Your task to perform on an android device: What's a good restaurant in Phoenix? Image 0: 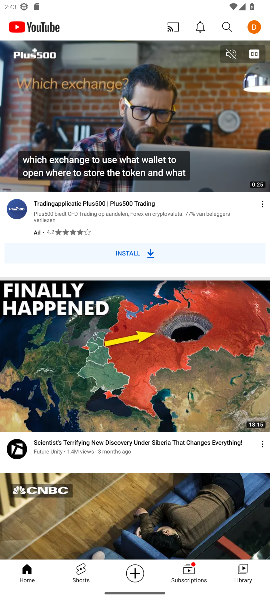
Step 0: press home button
Your task to perform on an android device: What's a good restaurant in Phoenix? Image 1: 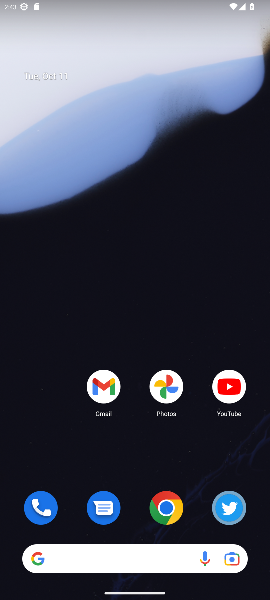
Step 1: click (165, 513)
Your task to perform on an android device: What's a good restaurant in Phoenix? Image 2: 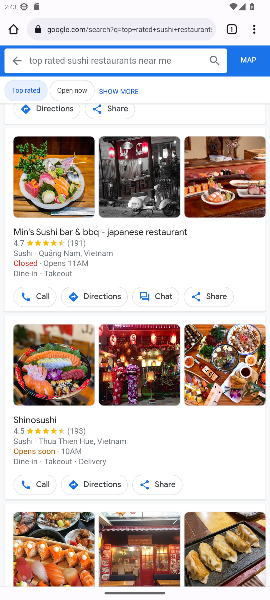
Step 2: click (179, 28)
Your task to perform on an android device: What's a good restaurant in Phoenix? Image 3: 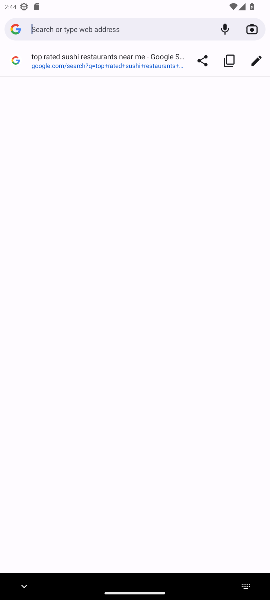
Step 3: type "good restaurant in Phoenix"
Your task to perform on an android device: What's a good restaurant in Phoenix? Image 4: 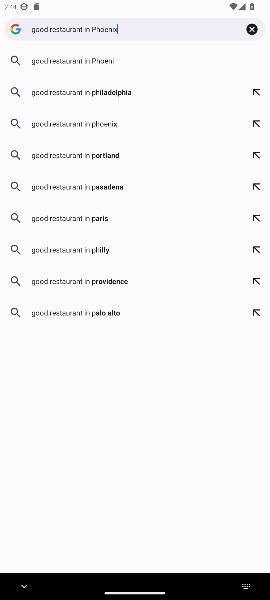
Step 4: type ""
Your task to perform on an android device: What's a good restaurant in Phoenix? Image 5: 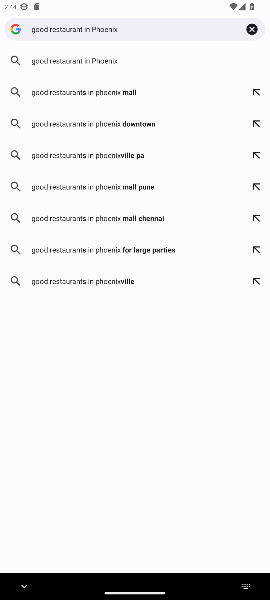
Step 5: press enter
Your task to perform on an android device: What's a good restaurant in Phoenix? Image 6: 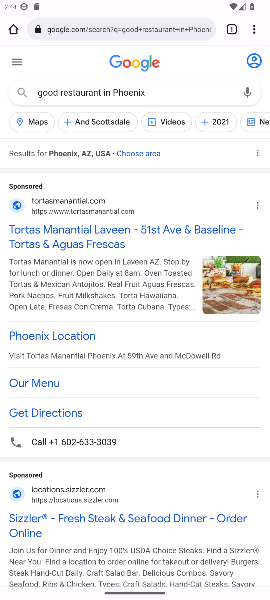
Step 6: drag from (176, 353) to (110, 123)
Your task to perform on an android device: What's a good restaurant in Phoenix? Image 7: 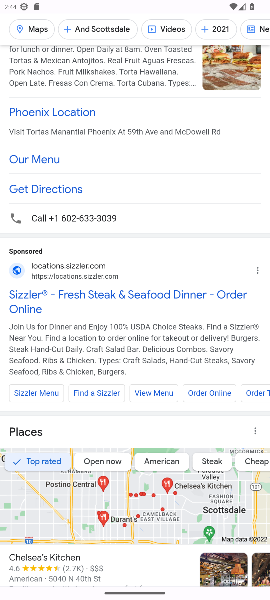
Step 7: drag from (127, 429) to (65, 150)
Your task to perform on an android device: What's a good restaurant in Phoenix? Image 8: 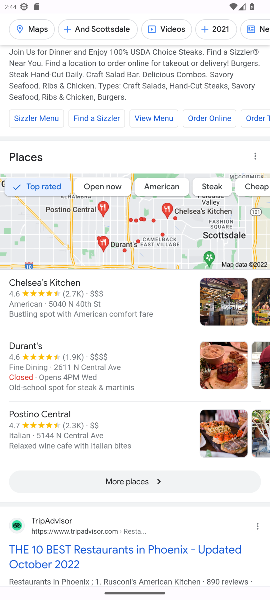
Step 8: click (112, 481)
Your task to perform on an android device: What's a good restaurant in Phoenix? Image 9: 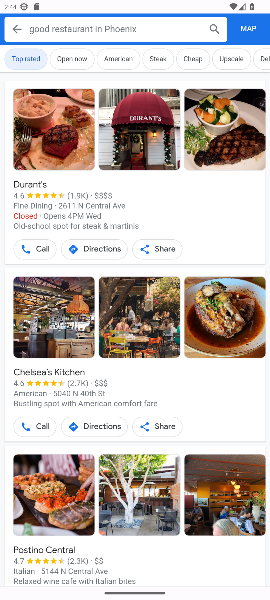
Step 9: task complete